Your task to perform on an android device: Turn off the flashlight Image 0: 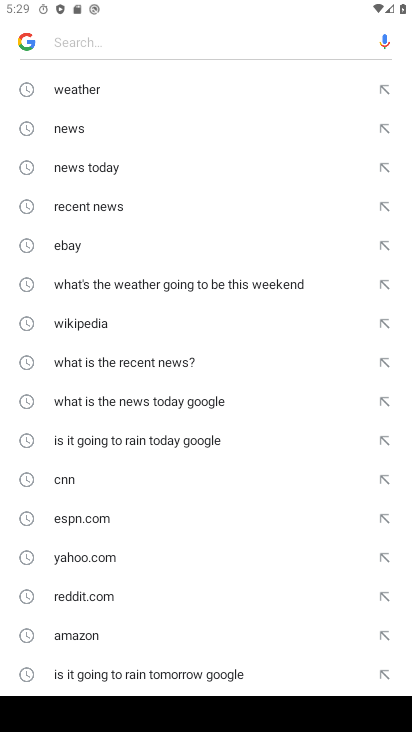
Step 0: press home button
Your task to perform on an android device: Turn off the flashlight Image 1: 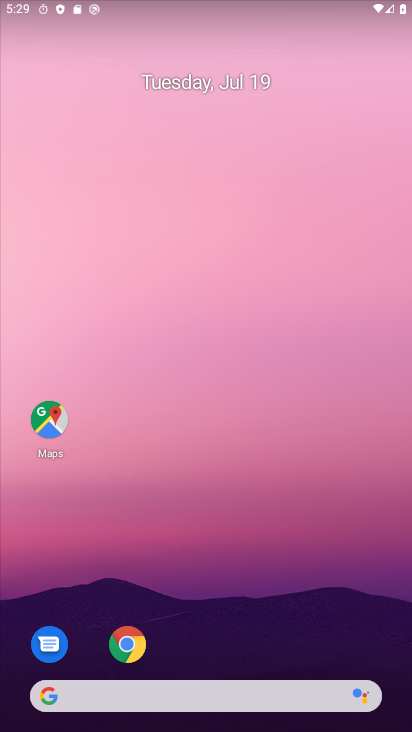
Step 1: drag from (231, 474) to (239, 225)
Your task to perform on an android device: Turn off the flashlight Image 2: 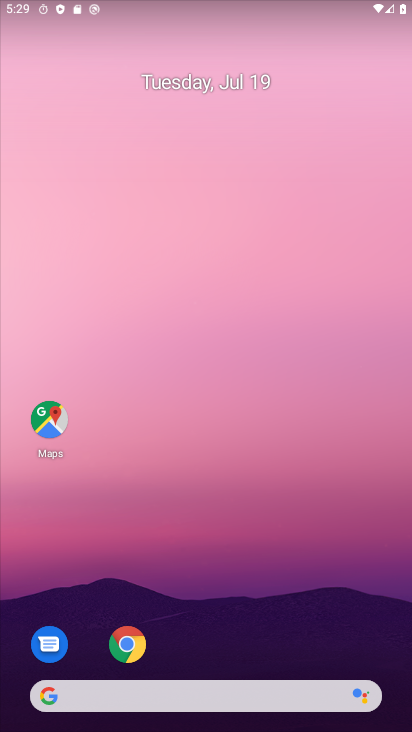
Step 2: drag from (238, 449) to (231, 115)
Your task to perform on an android device: Turn off the flashlight Image 3: 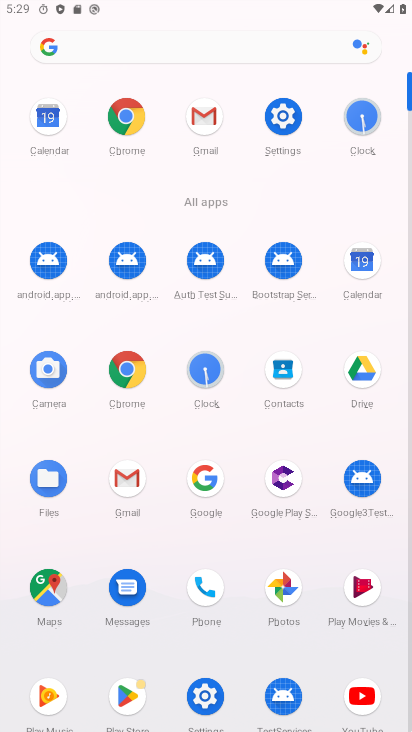
Step 3: click (282, 122)
Your task to perform on an android device: Turn off the flashlight Image 4: 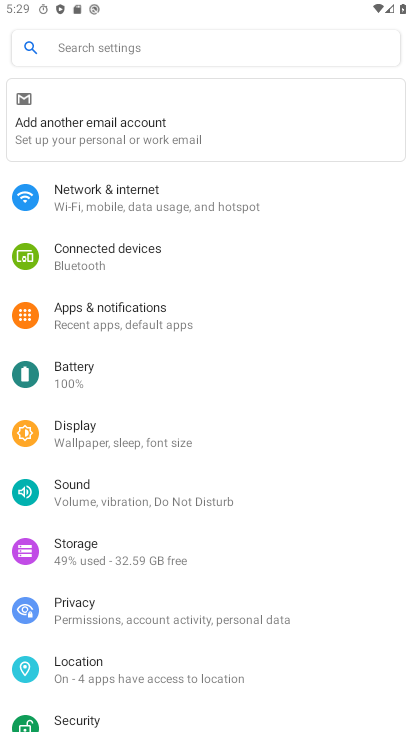
Step 4: task complete